Your task to perform on an android device: Open the calendar app, open the side menu, and click the "Day" option Image 0: 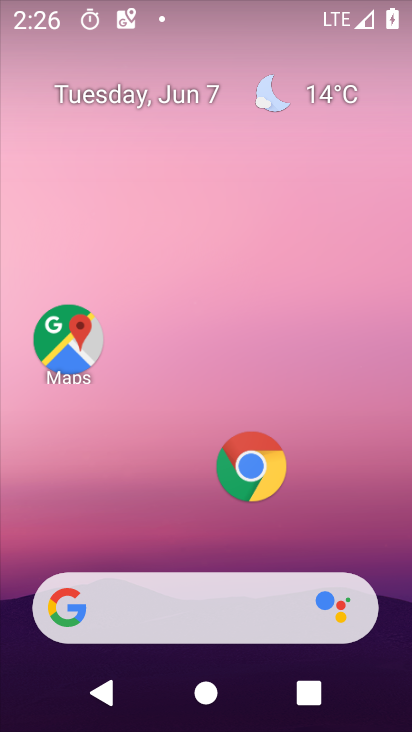
Step 0: drag from (160, 729) to (225, 67)
Your task to perform on an android device: Open the calendar app, open the side menu, and click the "Day" option Image 1: 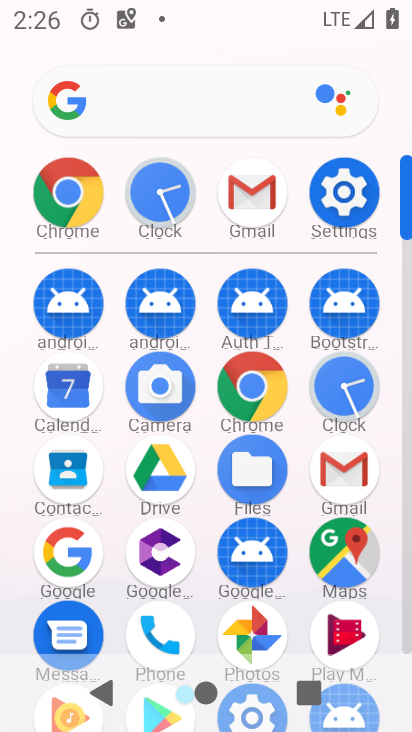
Step 1: click (68, 408)
Your task to perform on an android device: Open the calendar app, open the side menu, and click the "Day" option Image 2: 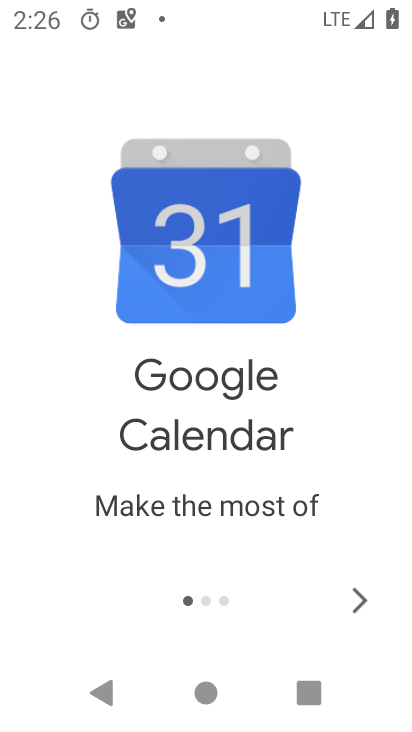
Step 2: click (355, 610)
Your task to perform on an android device: Open the calendar app, open the side menu, and click the "Day" option Image 3: 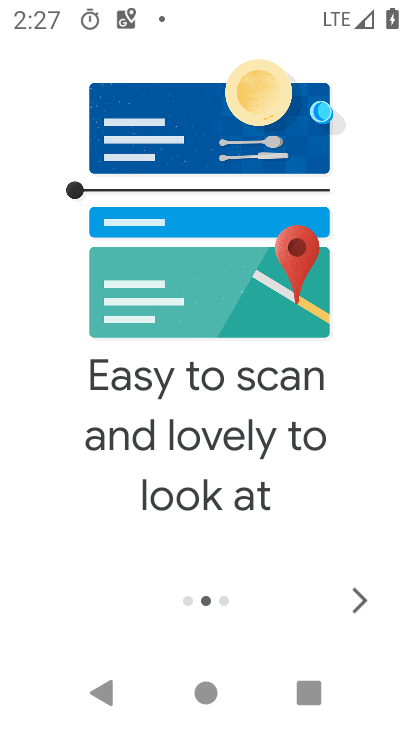
Step 3: click (355, 610)
Your task to perform on an android device: Open the calendar app, open the side menu, and click the "Day" option Image 4: 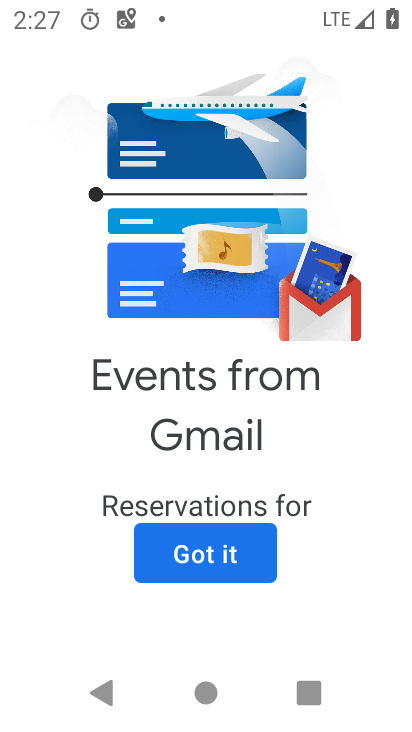
Step 4: click (210, 560)
Your task to perform on an android device: Open the calendar app, open the side menu, and click the "Day" option Image 5: 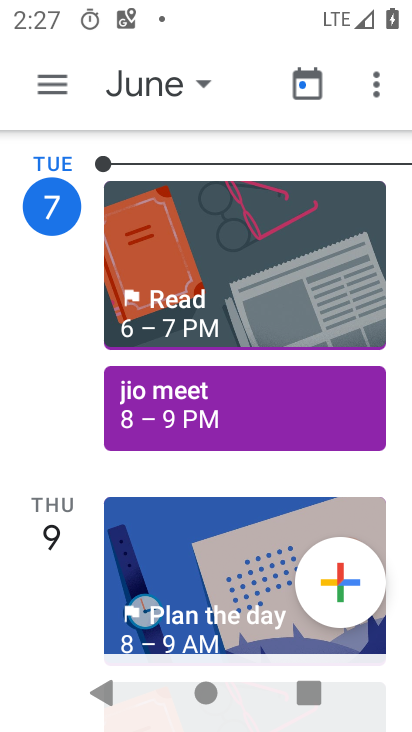
Step 5: click (67, 89)
Your task to perform on an android device: Open the calendar app, open the side menu, and click the "Day" option Image 6: 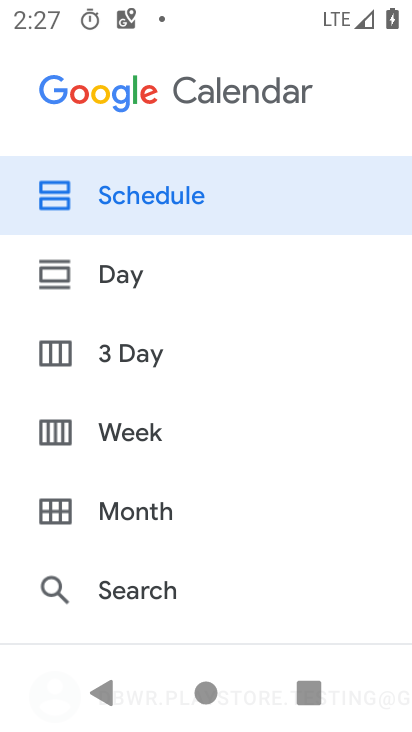
Step 6: click (122, 275)
Your task to perform on an android device: Open the calendar app, open the side menu, and click the "Day" option Image 7: 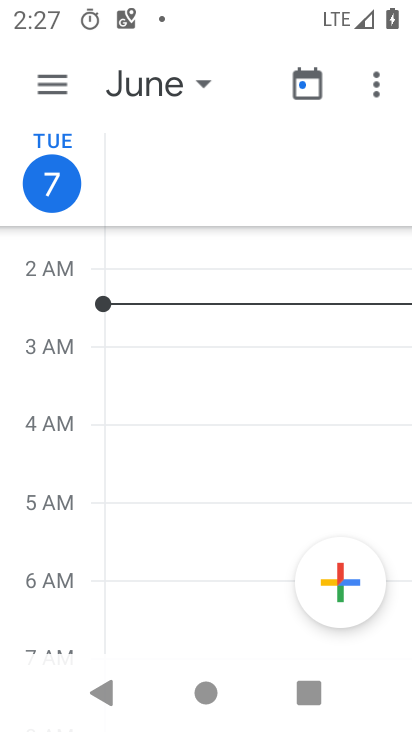
Step 7: task complete